Your task to perform on an android device: open sync settings in chrome Image 0: 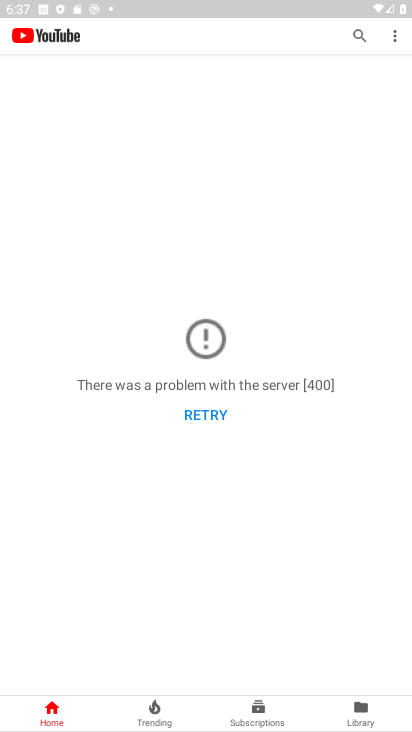
Step 0: press home button
Your task to perform on an android device: open sync settings in chrome Image 1: 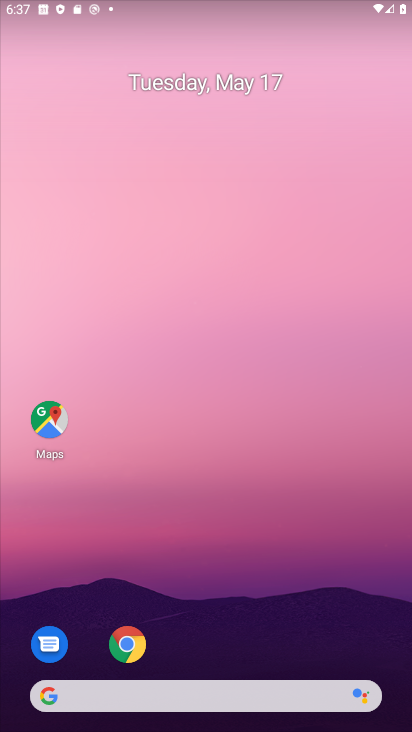
Step 1: drag from (374, 620) to (351, 3)
Your task to perform on an android device: open sync settings in chrome Image 2: 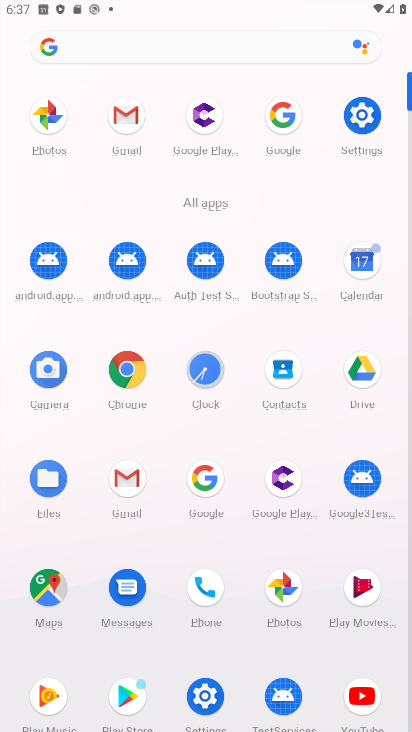
Step 2: click (129, 382)
Your task to perform on an android device: open sync settings in chrome Image 3: 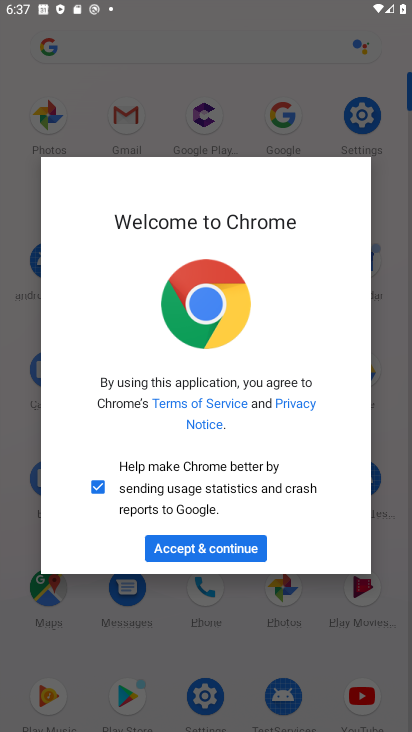
Step 3: click (231, 548)
Your task to perform on an android device: open sync settings in chrome Image 4: 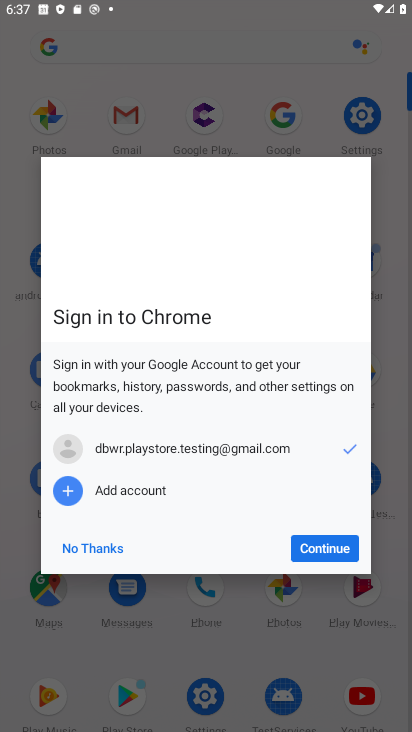
Step 4: click (325, 548)
Your task to perform on an android device: open sync settings in chrome Image 5: 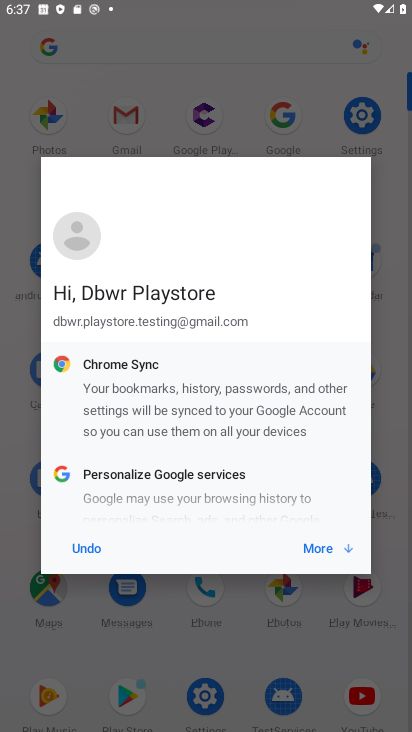
Step 5: click (325, 548)
Your task to perform on an android device: open sync settings in chrome Image 6: 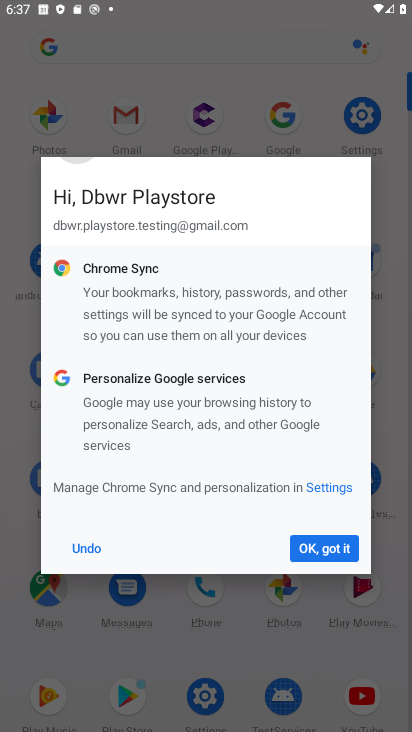
Step 6: click (325, 548)
Your task to perform on an android device: open sync settings in chrome Image 7: 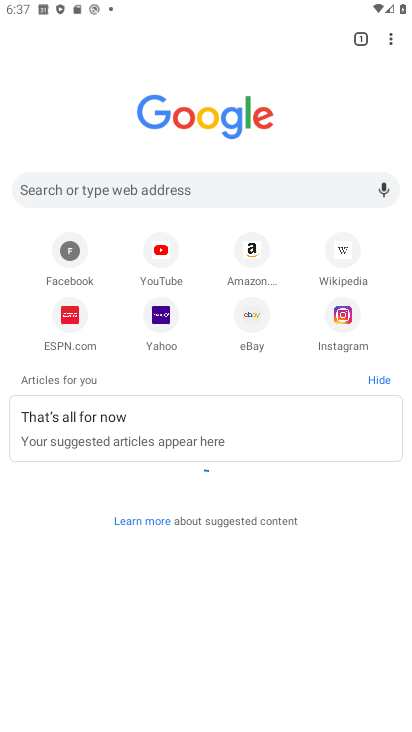
Step 7: click (387, 38)
Your task to perform on an android device: open sync settings in chrome Image 8: 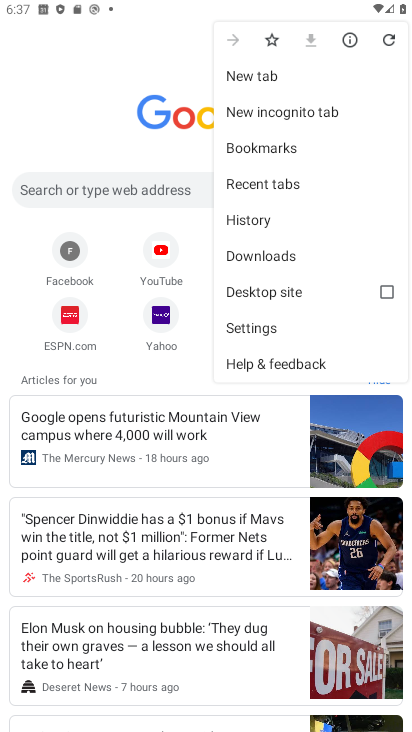
Step 8: click (271, 329)
Your task to perform on an android device: open sync settings in chrome Image 9: 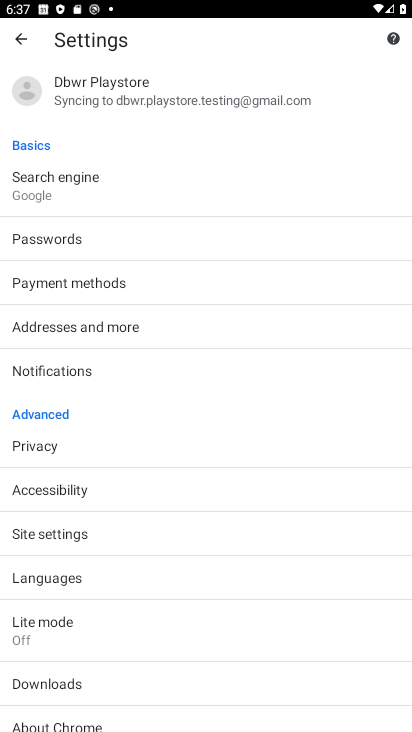
Step 9: click (80, 530)
Your task to perform on an android device: open sync settings in chrome Image 10: 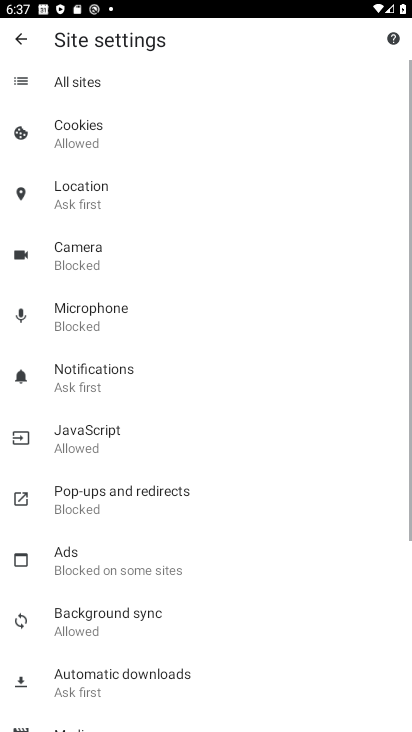
Step 10: drag from (57, 622) to (119, 357)
Your task to perform on an android device: open sync settings in chrome Image 11: 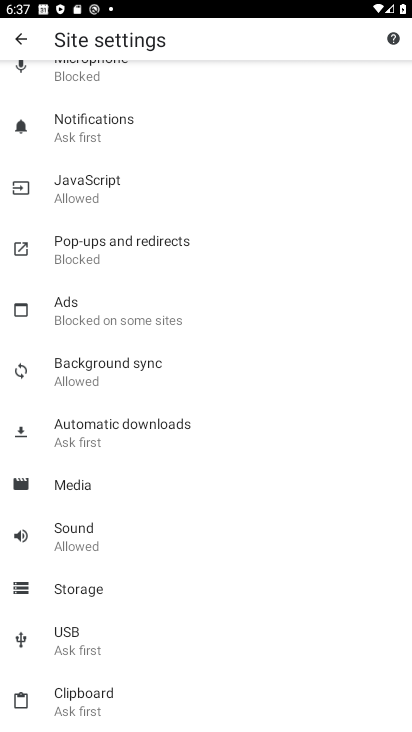
Step 11: click (105, 364)
Your task to perform on an android device: open sync settings in chrome Image 12: 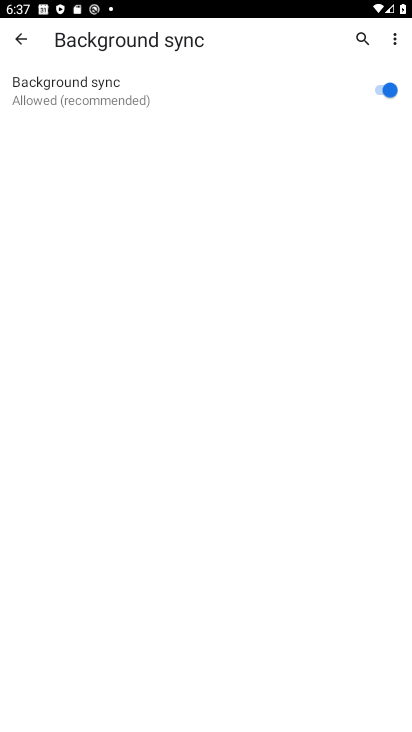
Step 12: task complete